Your task to perform on an android device: Toggle the flashlight Image 0: 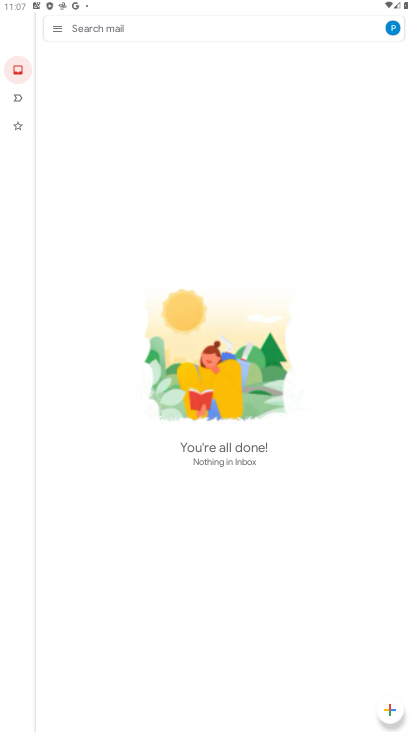
Step 0: press home button
Your task to perform on an android device: Toggle the flashlight Image 1: 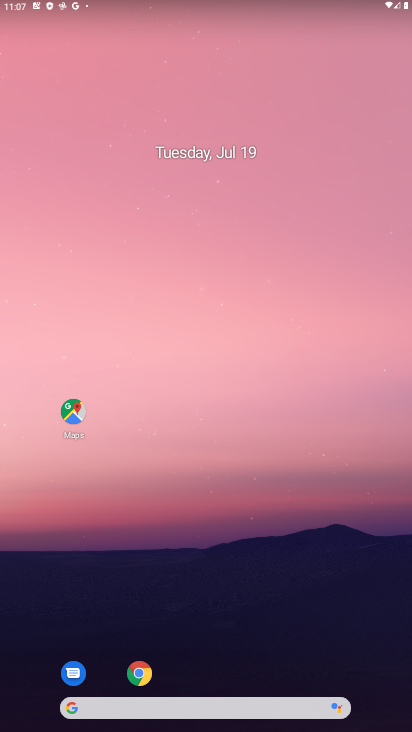
Step 1: drag from (259, 651) to (144, 125)
Your task to perform on an android device: Toggle the flashlight Image 2: 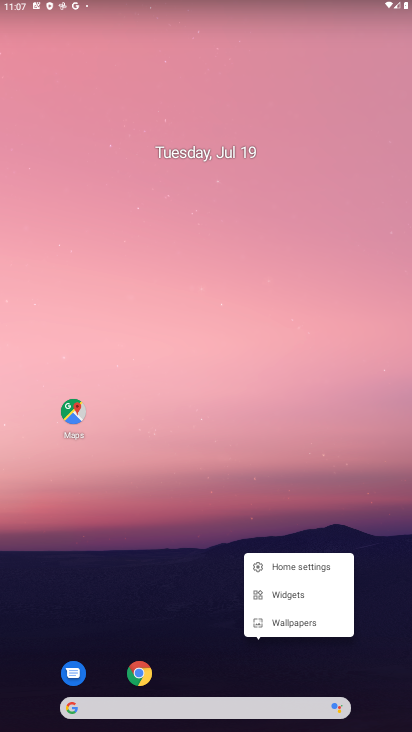
Step 2: click (220, 442)
Your task to perform on an android device: Toggle the flashlight Image 3: 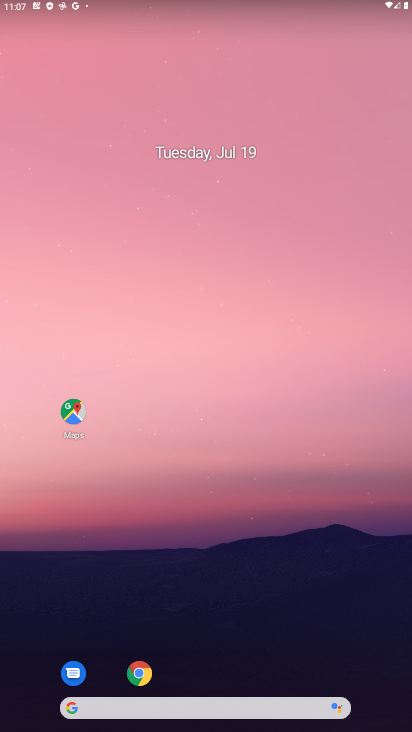
Step 3: drag from (197, 681) to (229, 7)
Your task to perform on an android device: Toggle the flashlight Image 4: 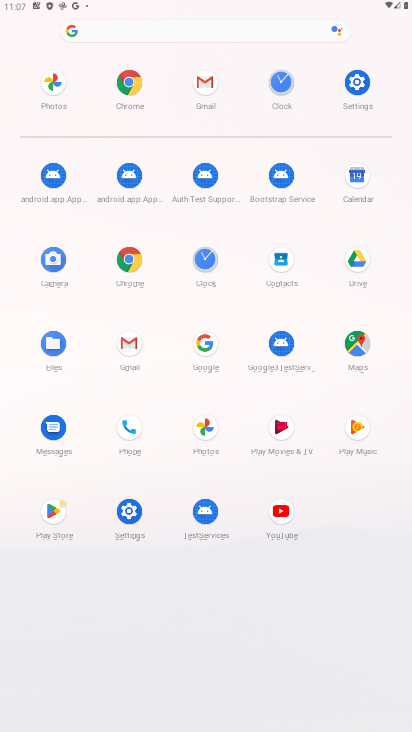
Step 4: click (340, 99)
Your task to perform on an android device: Toggle the flashlight Image 5: 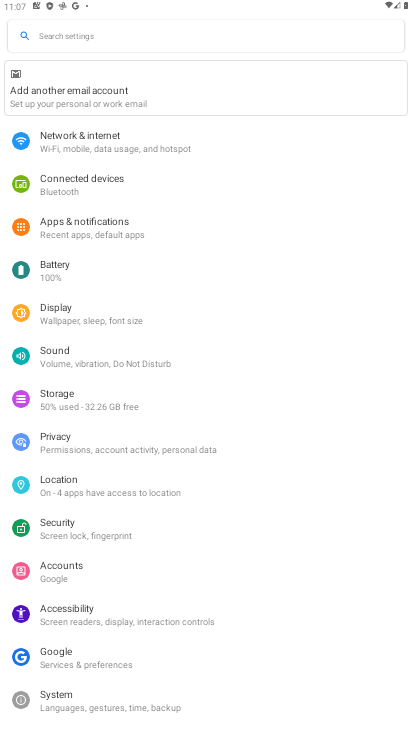
Step 5: task complete